Your task to perform on an android device: Open calendar and show me the fourth week of next month Image 0: 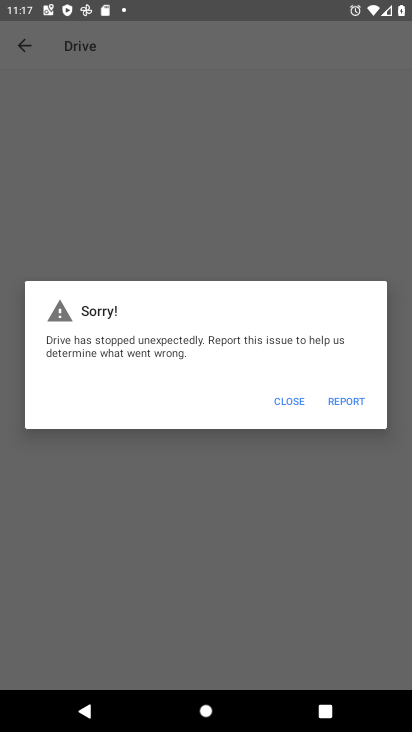
Step 0: press home button
Your task to perform on an android device: Open calendar and show me the fourth week of next month Image 1: 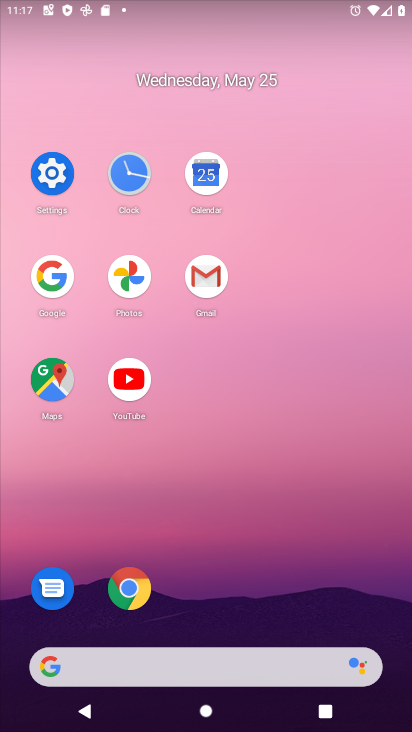
Step 1: click (216, 172)
Your task to perform on an android device: Open calendar and show me the fourth week of next month Image 2: 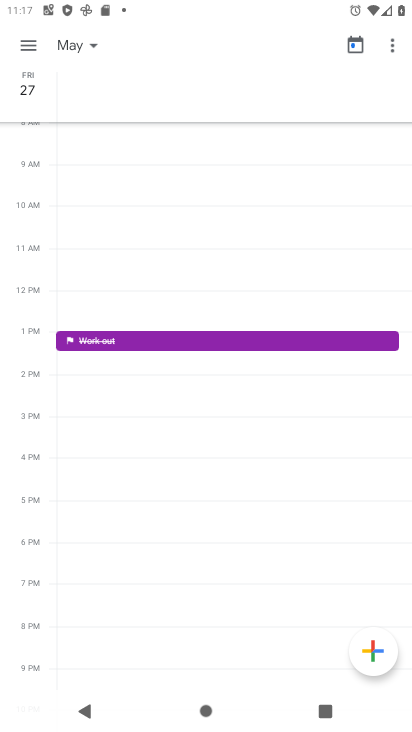
Step 2: click (98, 51)
Your task to perform on an android device: Open calendar and show me the fourth week of next month Image 3: 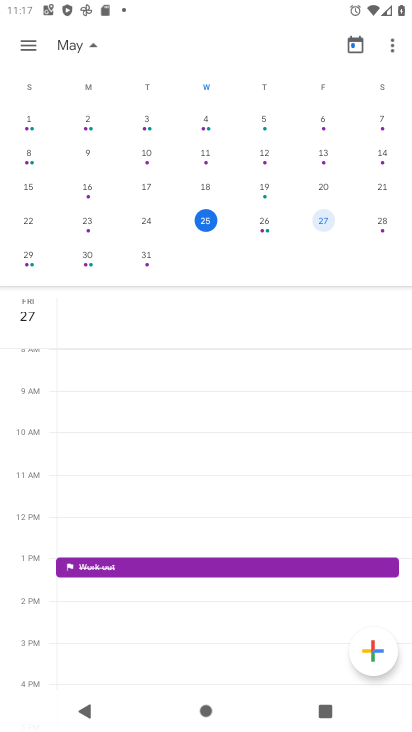
Step 3: drag from (381, 155) to (0, 144)
Your task to perform on an android device: Open calendar and show me the fourth week of next month Image 4: 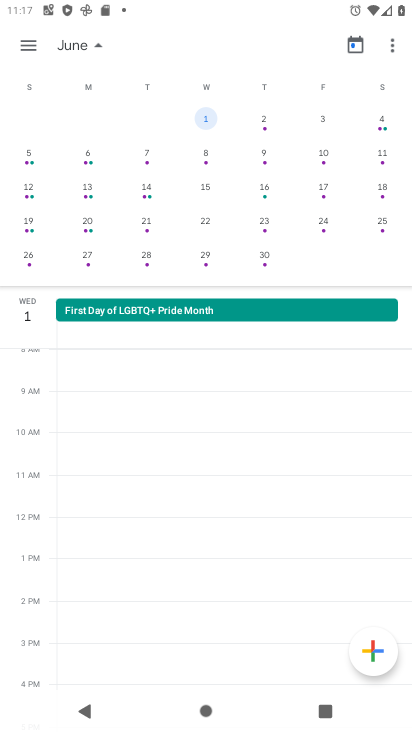
Step 4: click (40, 54)
Your task to perform on an android device: Open calendar and show me the fourth week of next month Image 5: 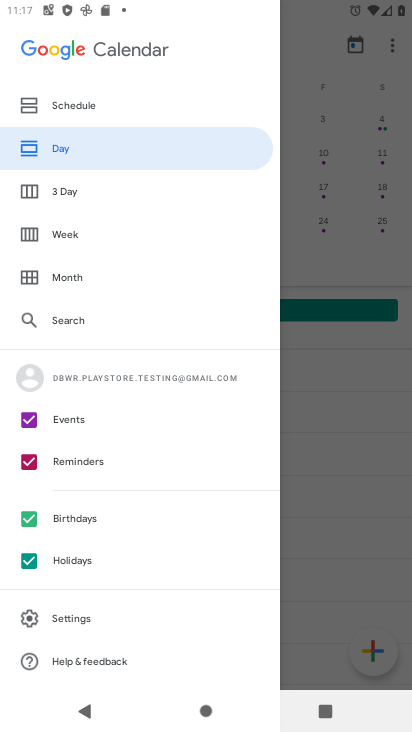
Step 5: click (83, 229)
Your task to perform on an android device: Open calendar and show me the fourth week of next month Image 6: 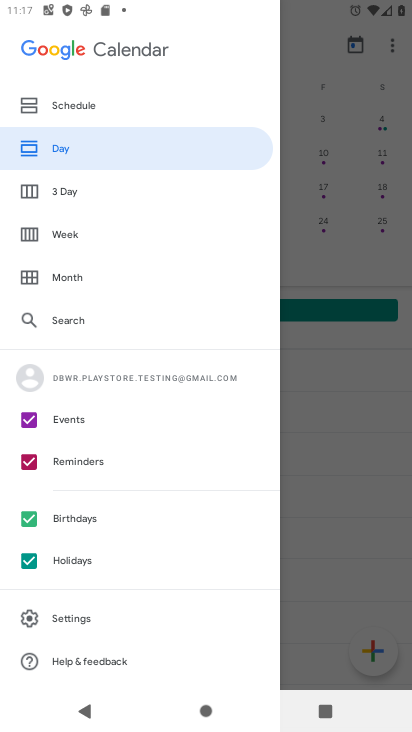
Step 6: click (78, 237)
Your task to perform on an android device: Open calendar and show me the fourth week of next month Image 7: 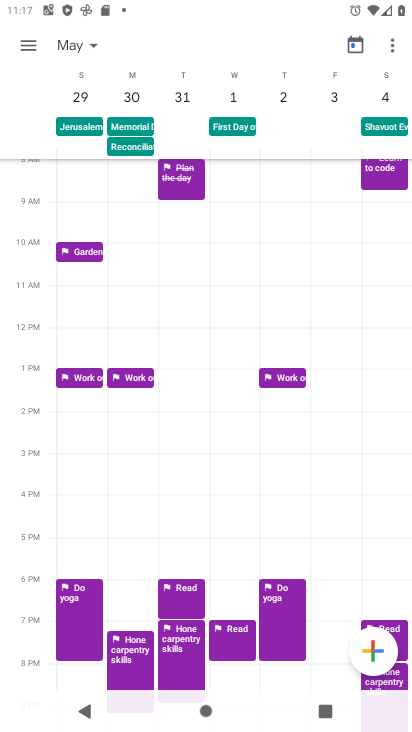
Step 7: task complete